Your task to perform on an android device: Go to Yahoo.com Image 0: 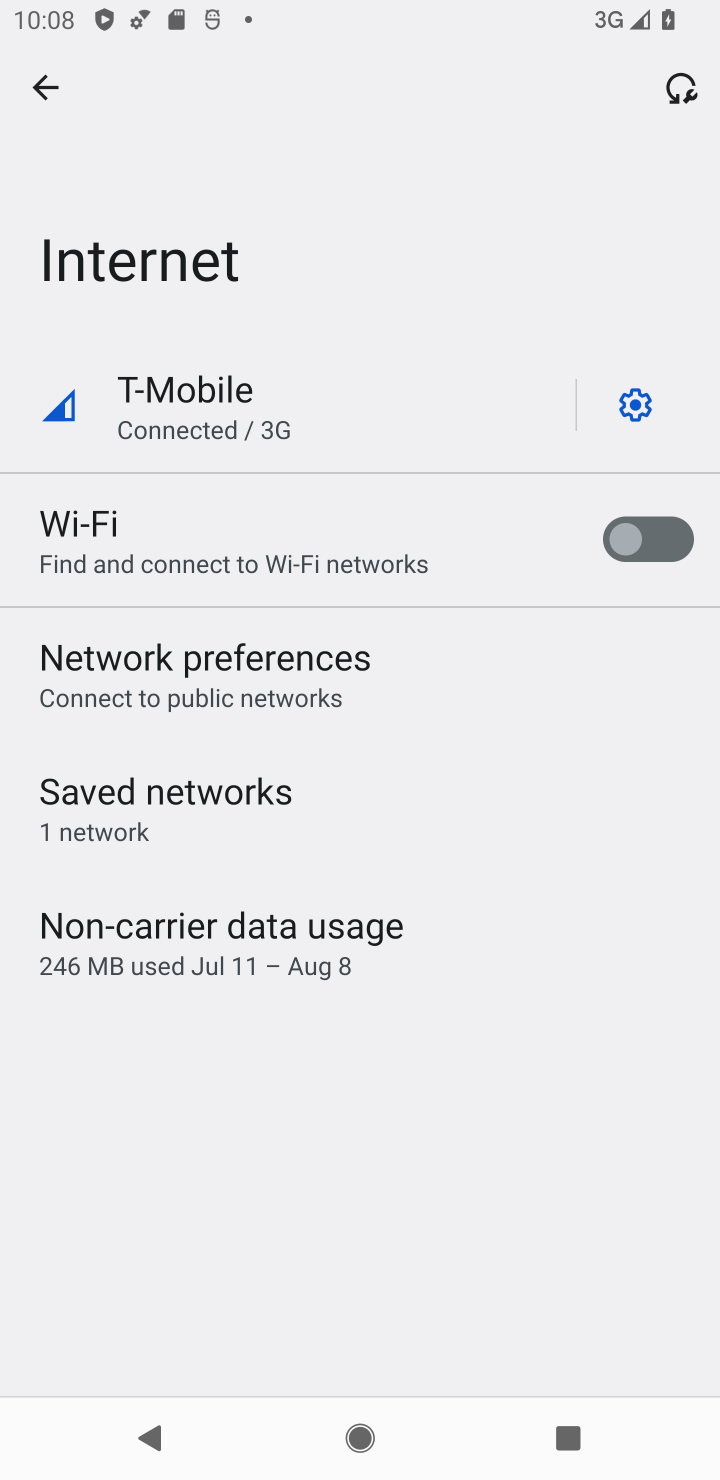
Step 0: press home button
Your task to perform on an android device: Go to Yahoo.com Image 1: 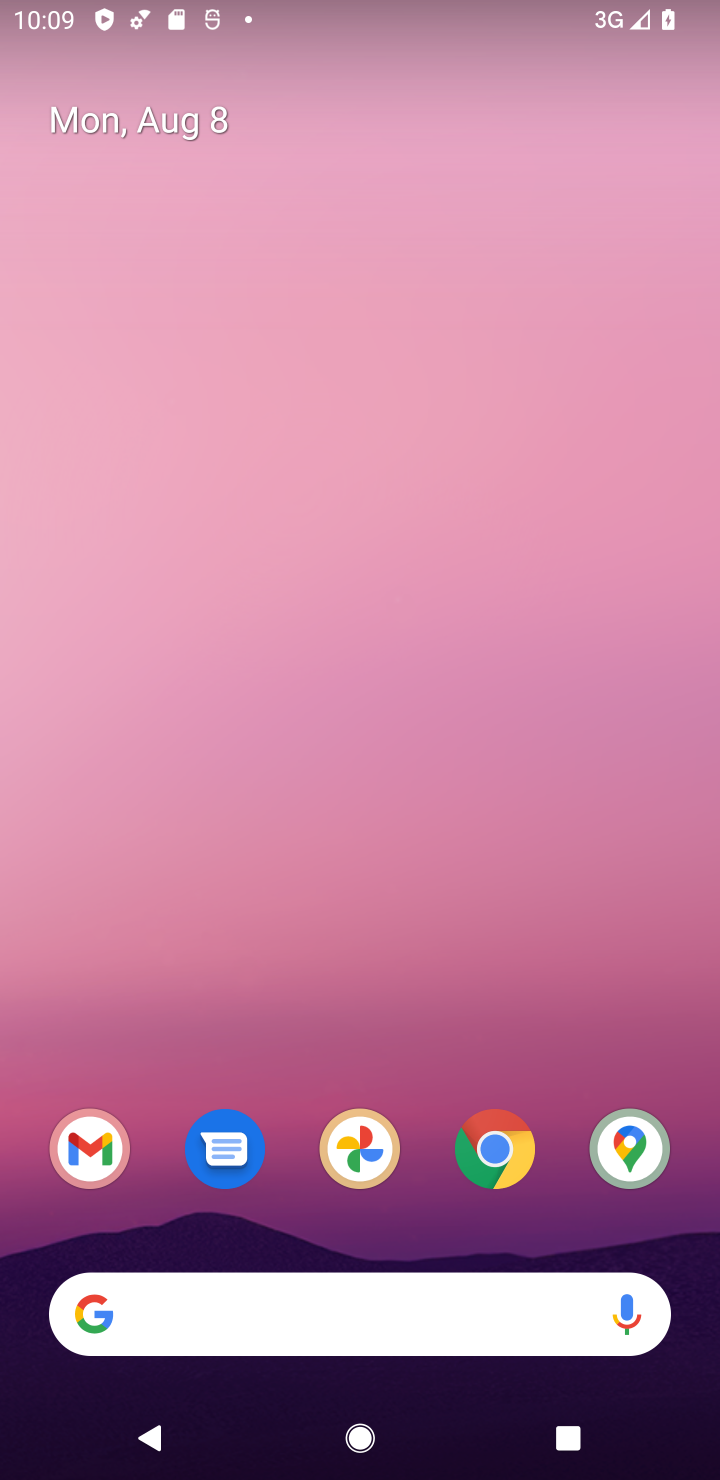
Step 1: drag from (262, 973) to (196, 503)
Your task to perform on an android device: Go to Yahoo.com Image 2: 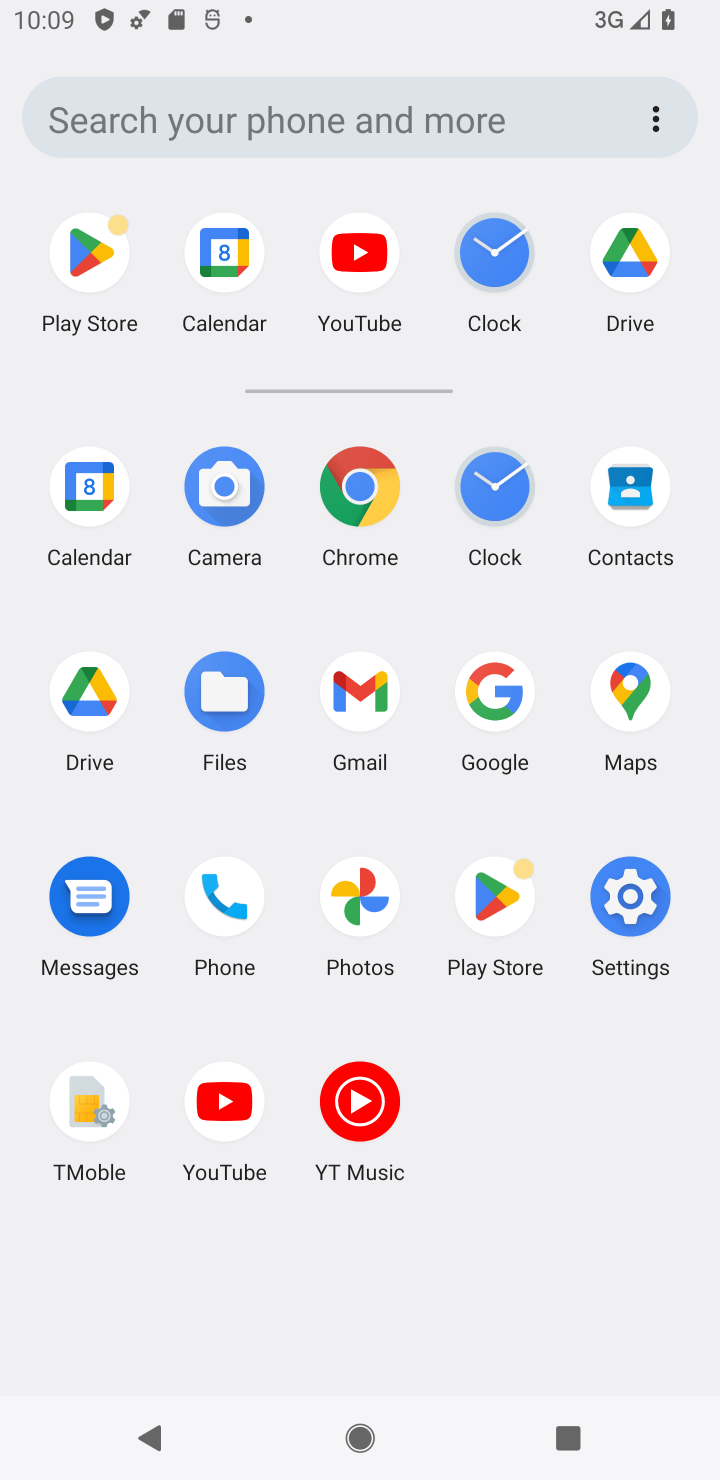
Step 2: click (489, 680)
Your task to perform on an android device: Go to Yahoo.com Image 3: 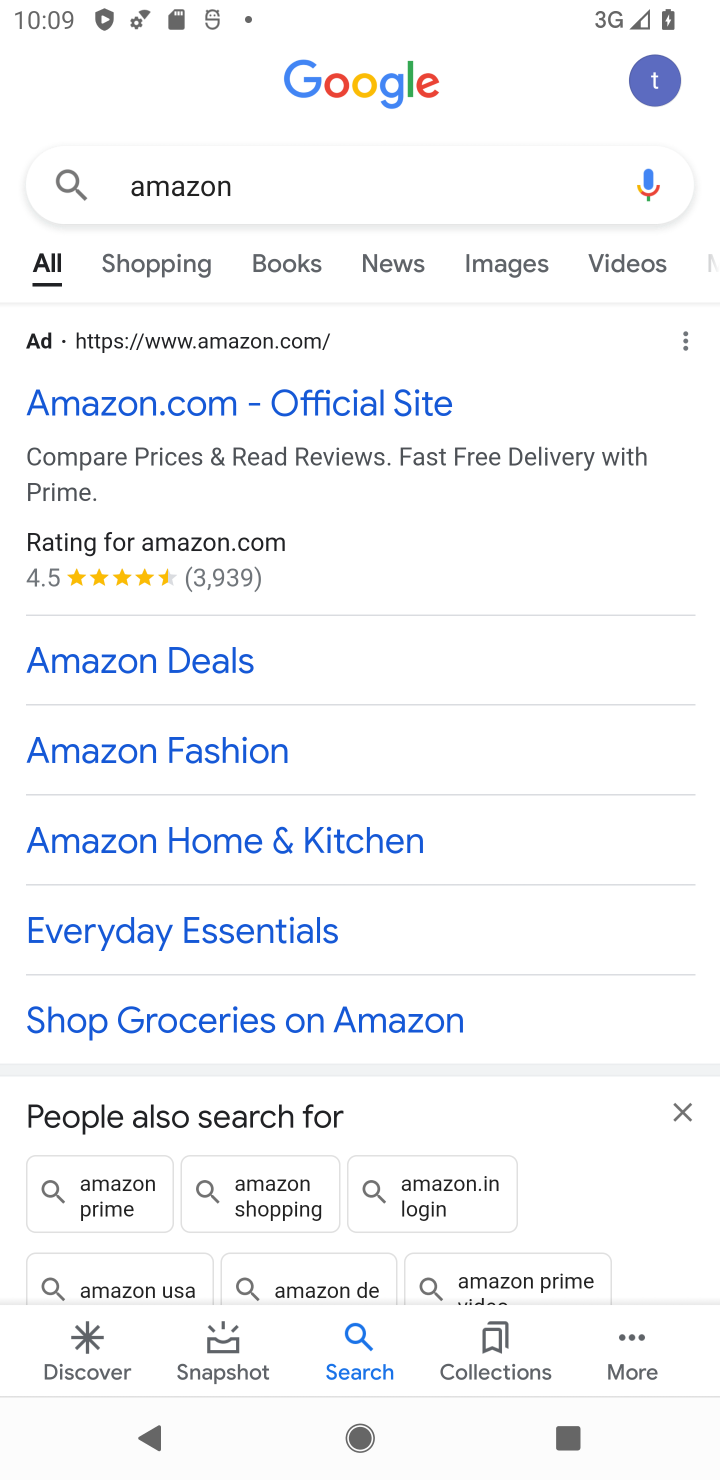
Step 3: click (260, 192)
Your task to perform on an android device: Go to Yahoo.com Image 4: 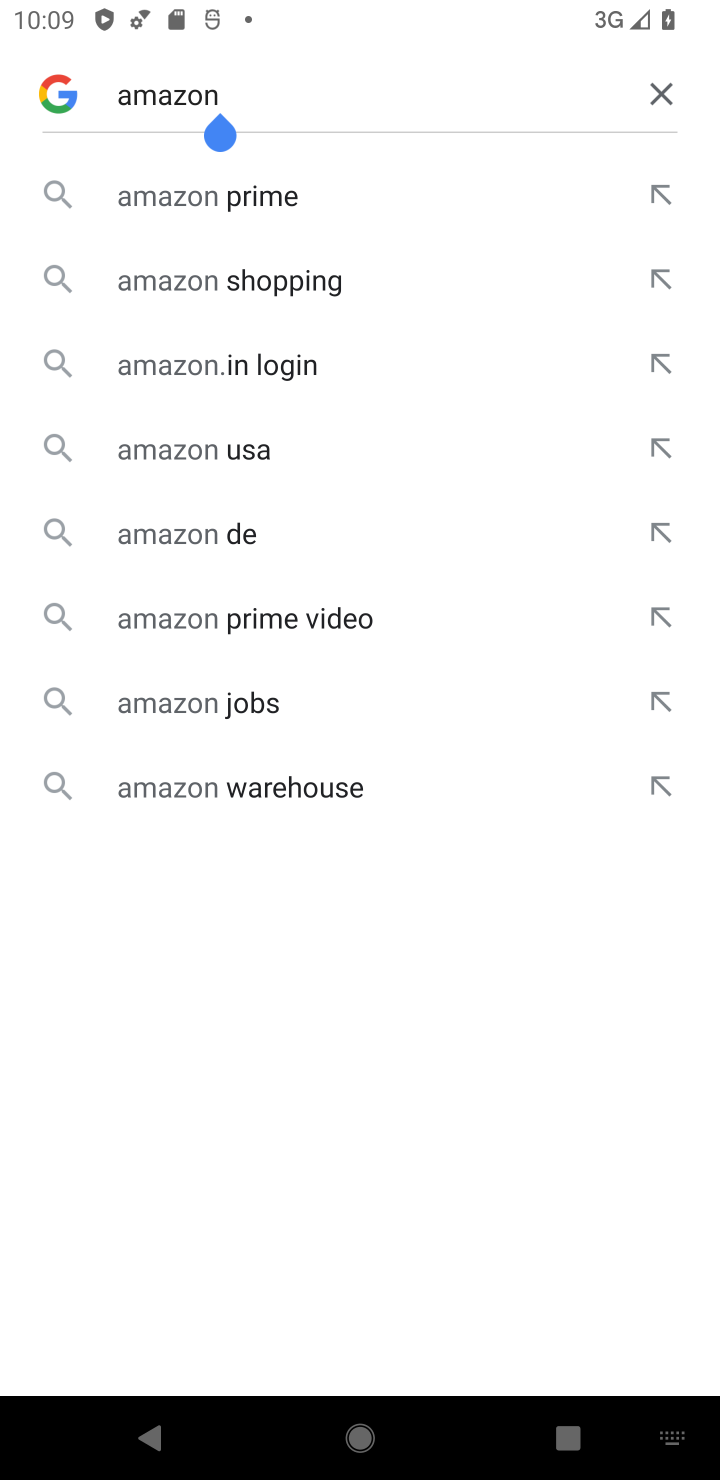
Step 4: click (664, 96)
Your task to perform on an android device: Go to Yahoo.com Image 5: 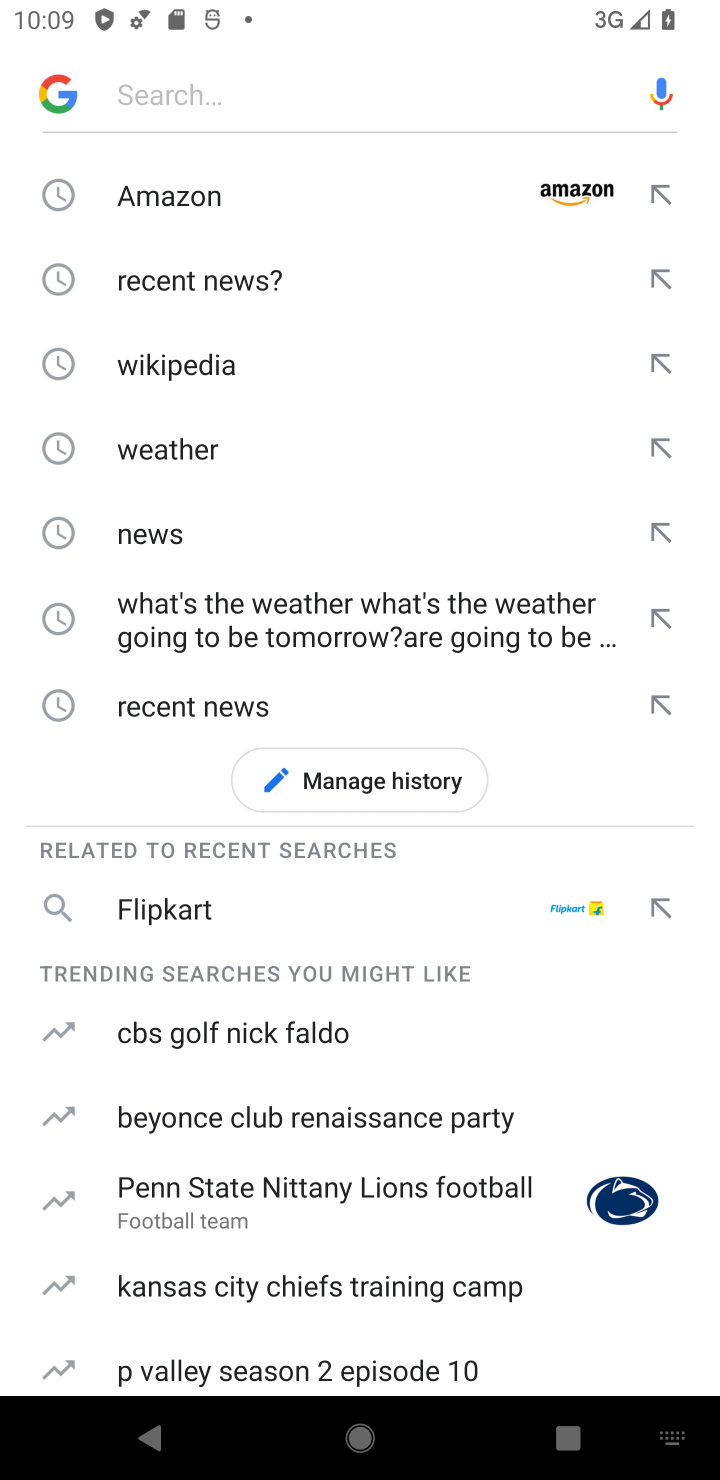
Step 5: type " Yahoo.com"
Your task to perform on an android device: Go to Yahoo.com Image 6: 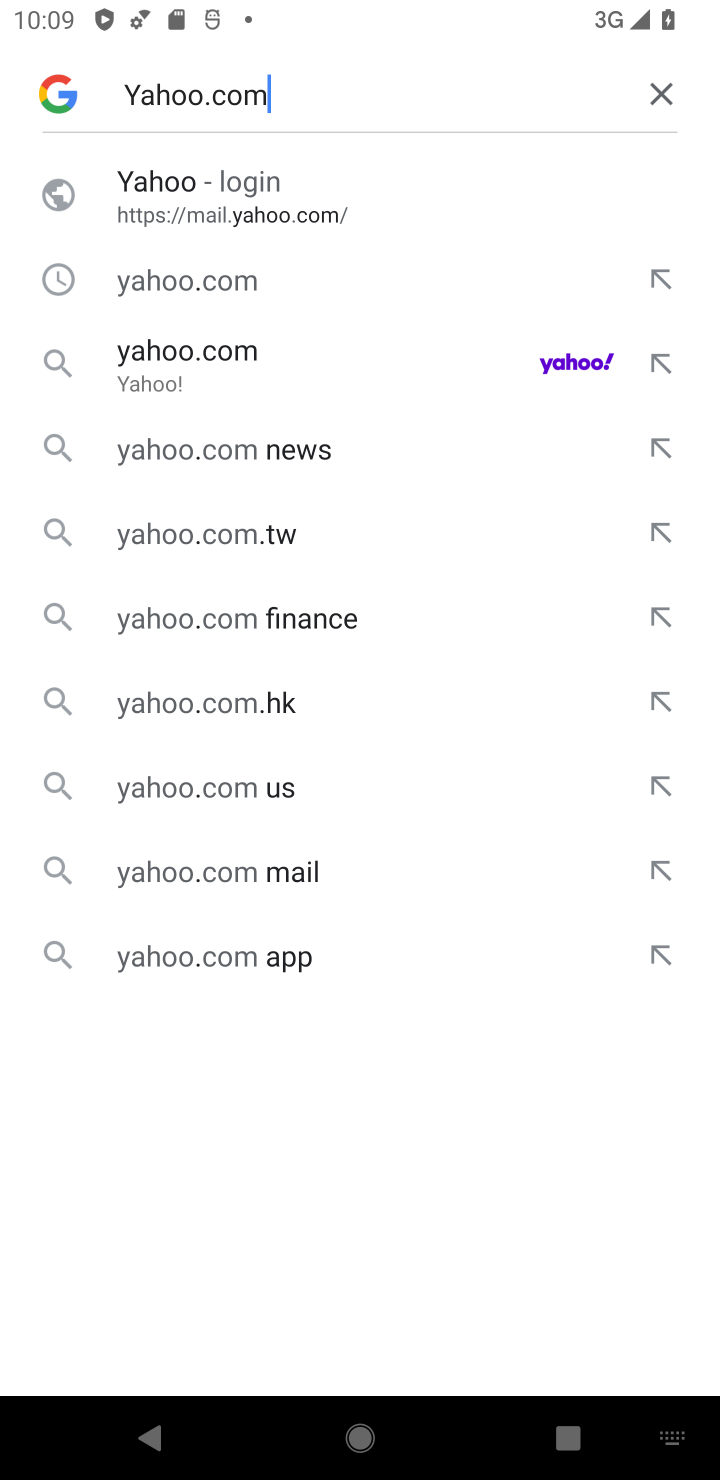
Step 6: click (205, 352)
Your task to perform on an android device: Go to Yahoo.com Image 7: 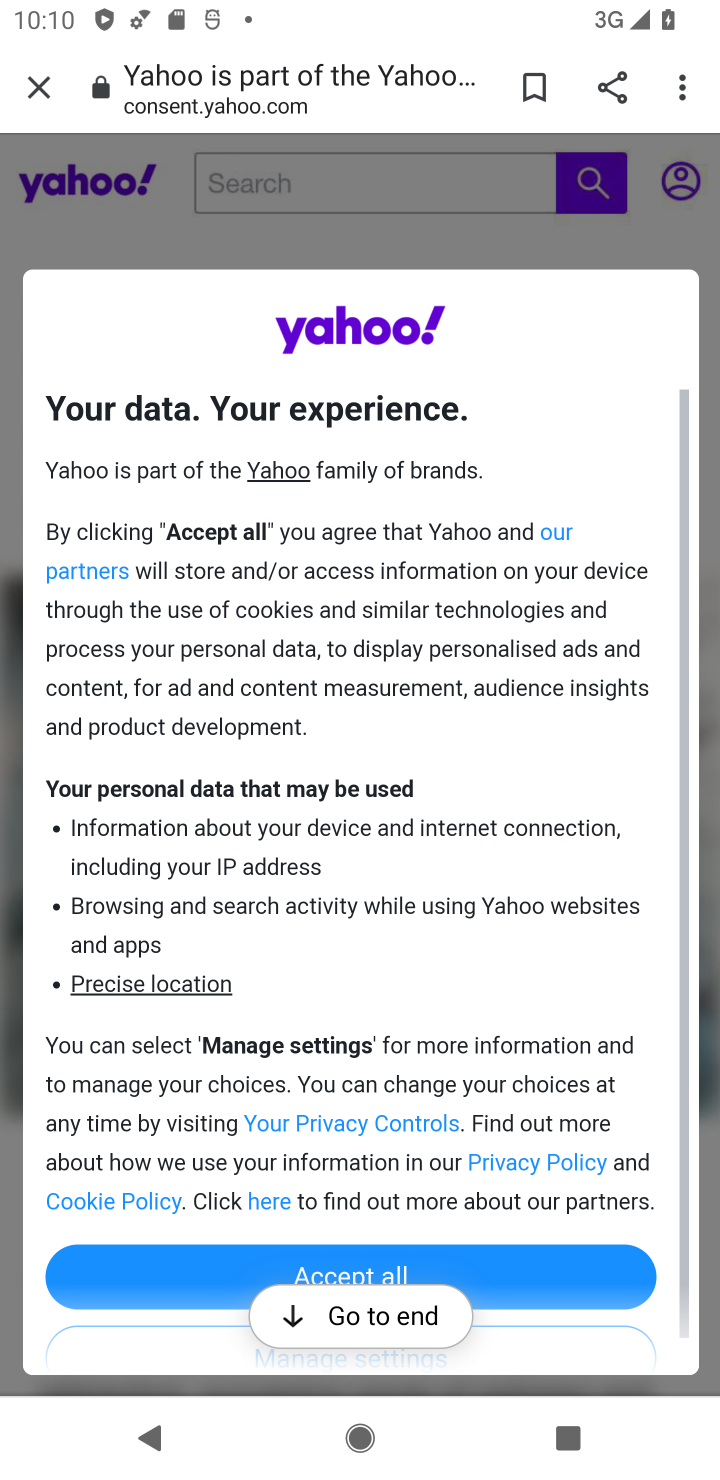
Step 7: task complete